Your task to perform on an android device: delete a single message in the gmail app Image 0: 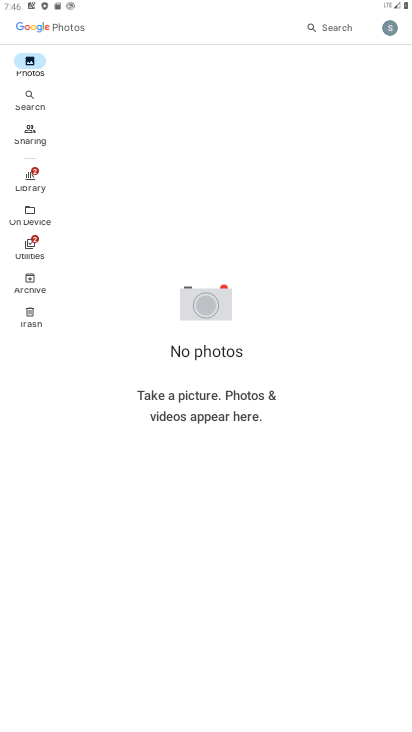
Step 0: press home button
Your task to perform on an android device: delete a single message in the gmail app Image 1: 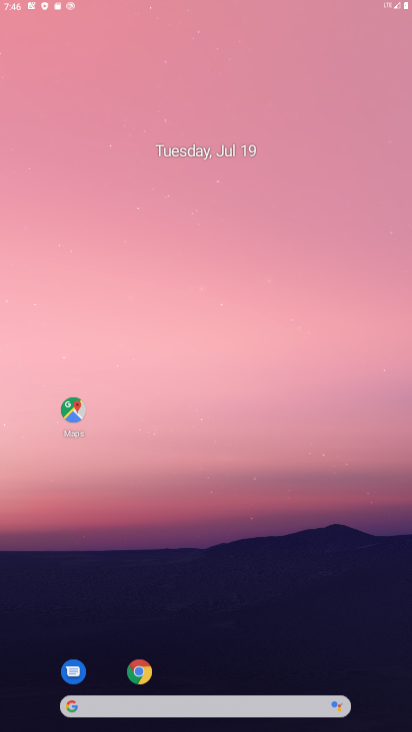
Step 1: drag from (365, 686) to (292, 19)
Your task to perform on an android device: delete a single message in the gmail app Image 2: 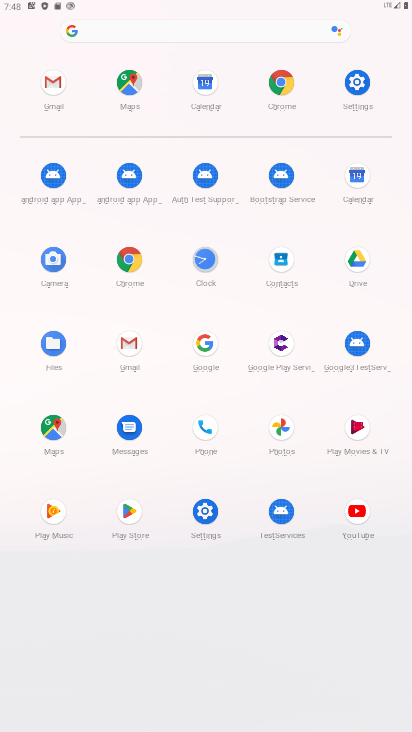
Step 2: click (131, 352)
Your task to perform on an android device: delete a single message in the gmail app Image 3: 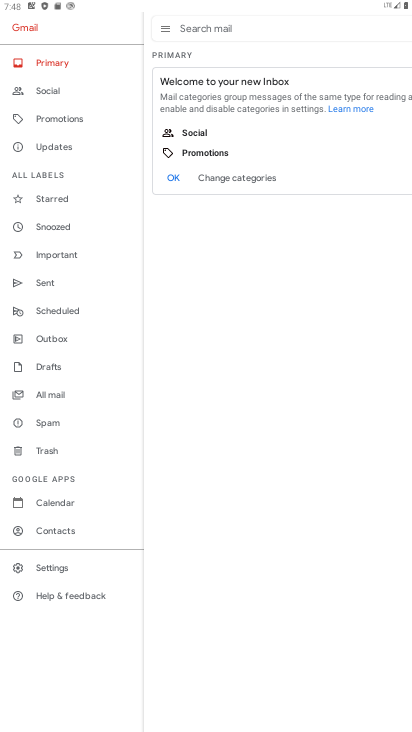
Step 3: task complete